Your task to perform on an android device: turn pop-ups off in chrome Image 0: 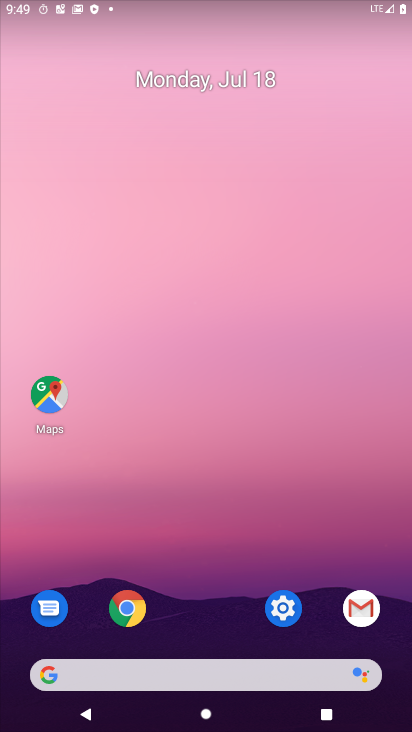
Step 0: click (136, 610)
Your task to perform on an android device: turn pop-ups off in chrome Image 1: 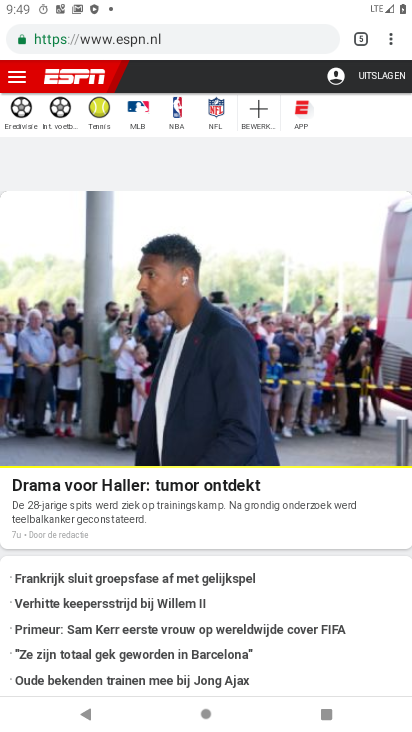
Step 1: click (386, 33)
Your task to perform on an android device: turn pop-ups off in chrome Image 2: 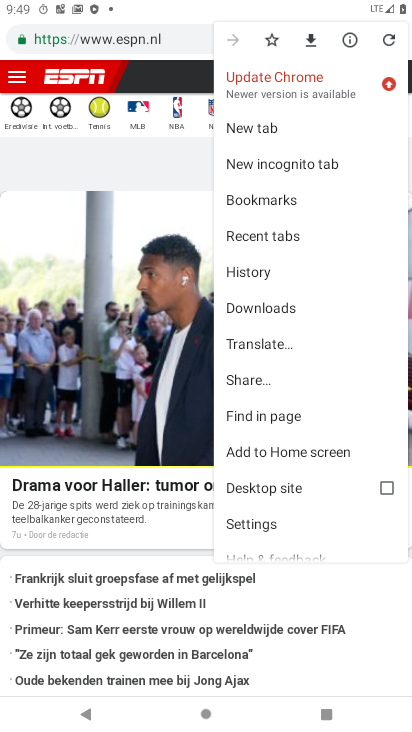
Step 2: click (244, 526)
Your task to perform on an android device: turn pop-ups off in chrome Image 3: 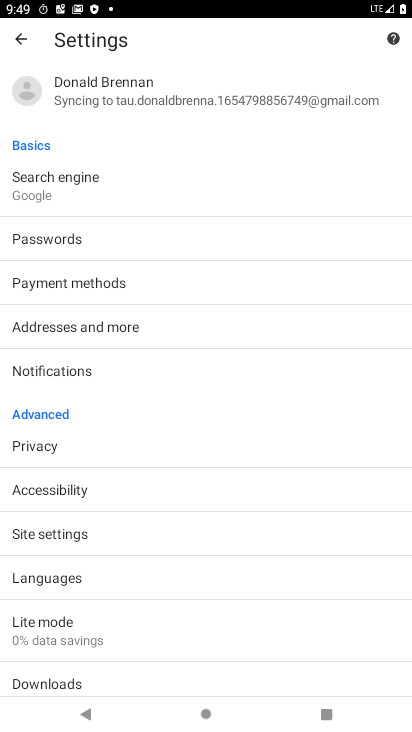
Step 3: click (86, 538)
Your task to perform on an android device: turn pop-ups off in chrome Image 4: 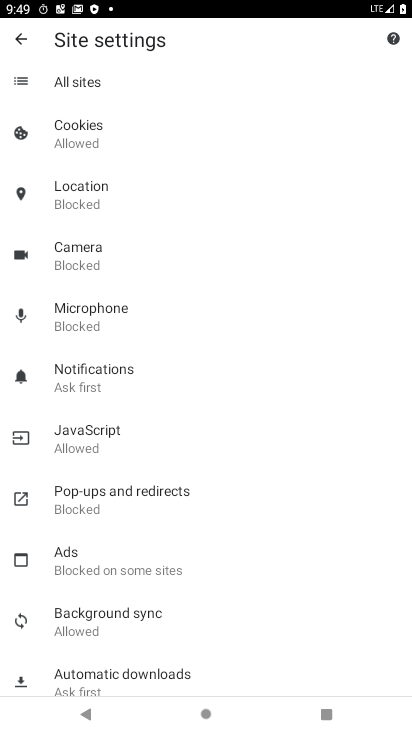
Step 4: click (115, 496)
Your task to perform on an android device: turn pop-ups off in chrome Image 5: 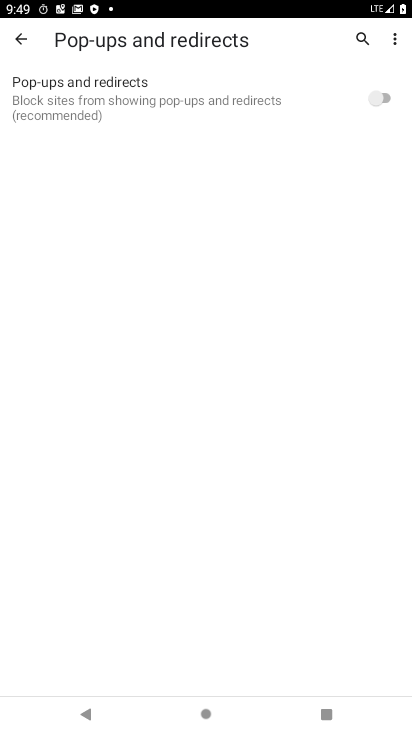
Step 5: click (381, 105)
Your task to perform on an android device: turn pop-ups off in chrome Image 6: 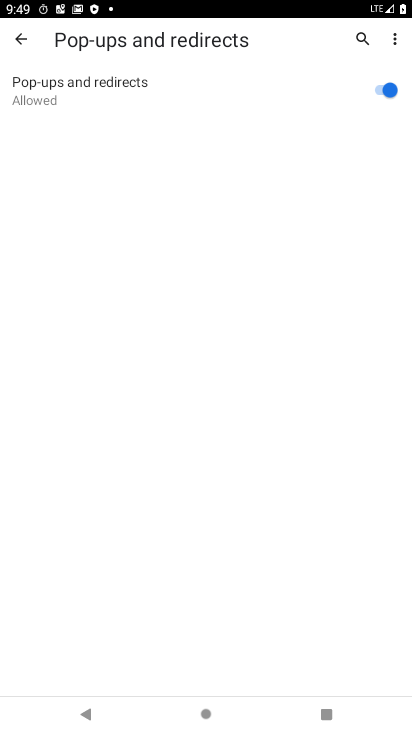
Step 6: click (387, 96)
Your task to perform on an android device: turn pop-ups off in chrome Image 7: 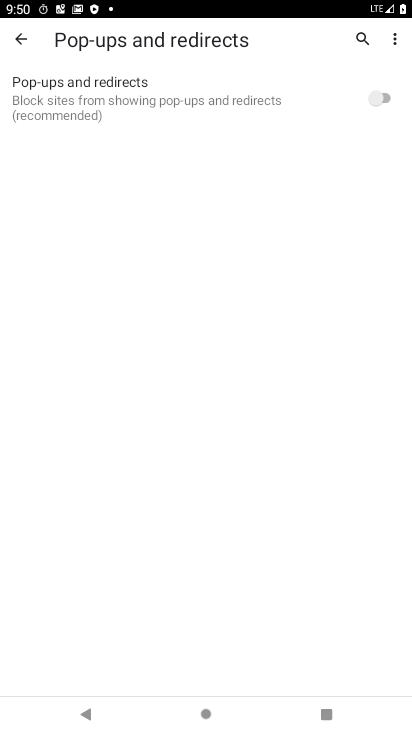
Step 7: task complete